Your task to perform on an android device: What is the news today? Image 0: 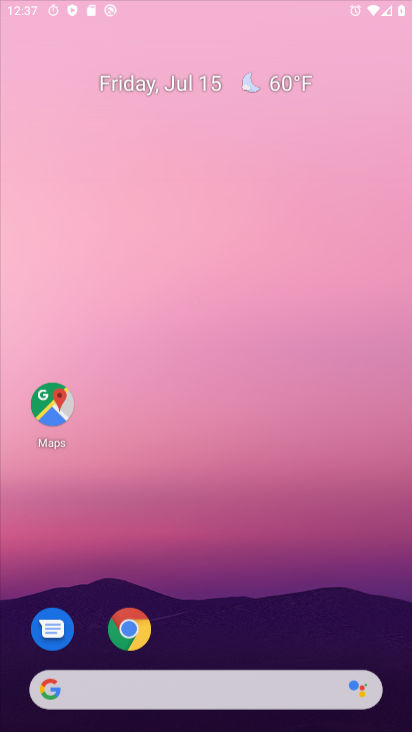
Step 0: click (49, 416)
Your task to perform on an android device: What is the news today? Image 1: 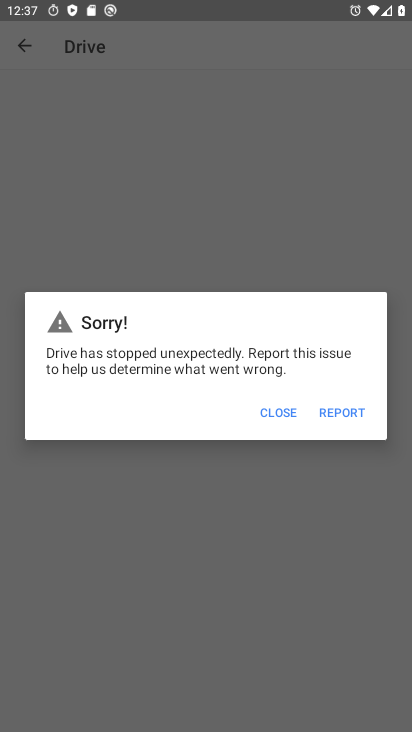
Step 1: click (281, 409)
Your task to perform on an android device: What is the news today? Image 2: 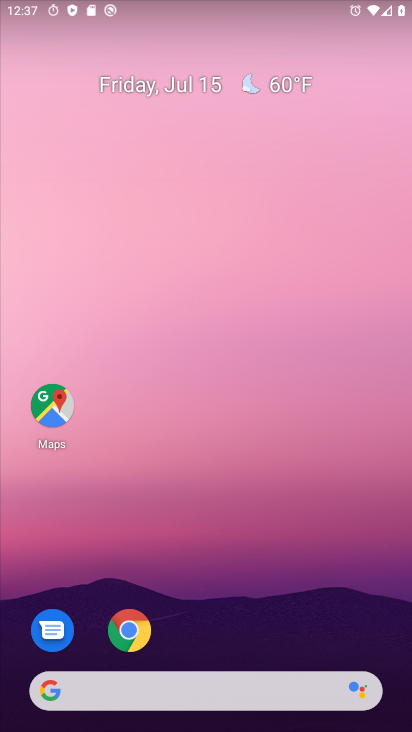
Step 2: drag from (190, 559) to (219, 246)
Your task to perform on an android device: What is the news today? Image 3: 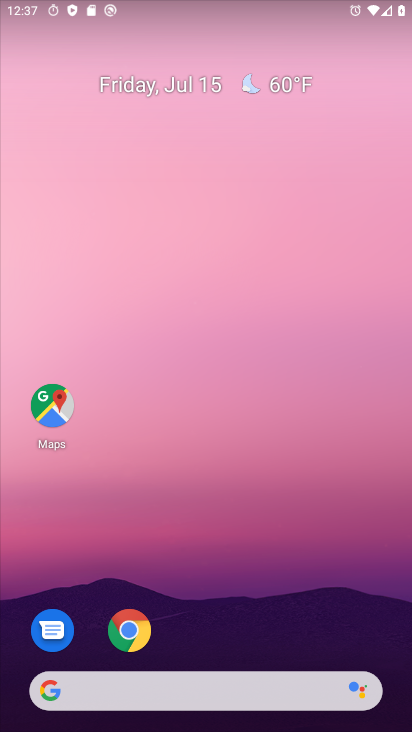
Step 3: drag from (206, 582) to (196, 158)
Your task to perform on an android device: What is the news today? Image 4: 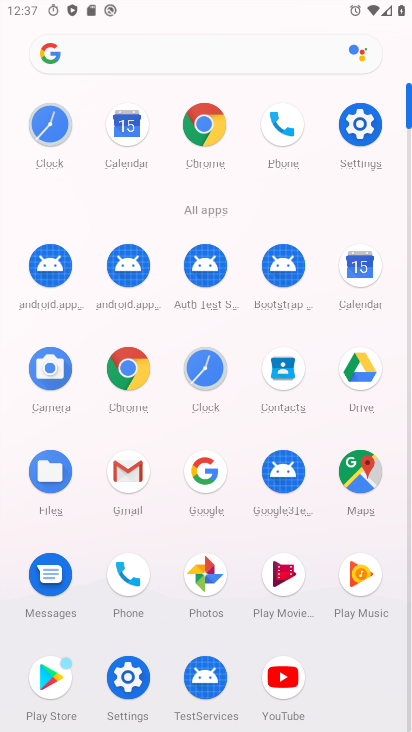
Step 4: click (205, 499)
Your task to perform on an android device: What is the news today? Image 5: 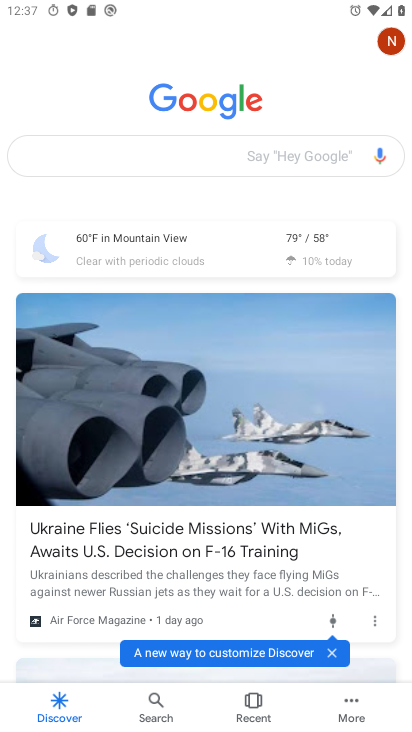
Step 5: click (212, 163)
Your task to perform on an android device: What is the news today? Image 6: 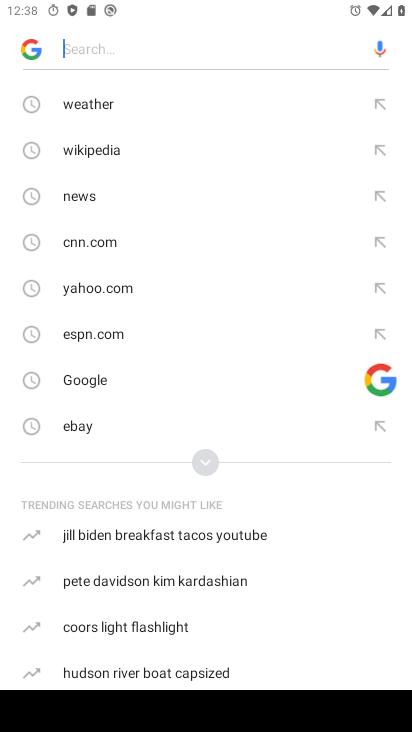
Step 6: type "news today"
Your task to perform on an android device: What is the news today? Image 7: 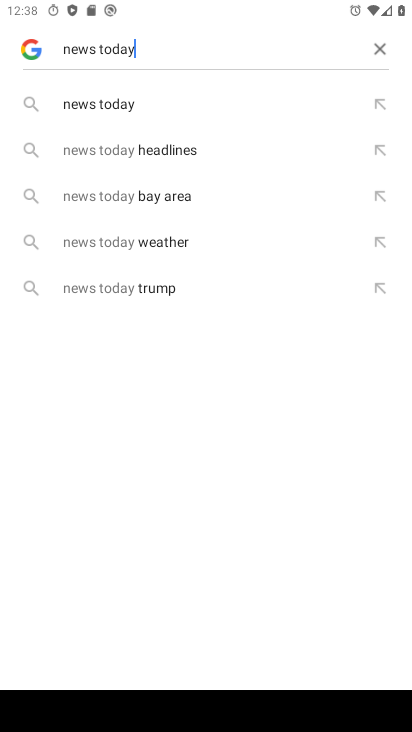
Step 7: click (104, 106)
Your task to perform on an android device: What is the news today? Image 8: 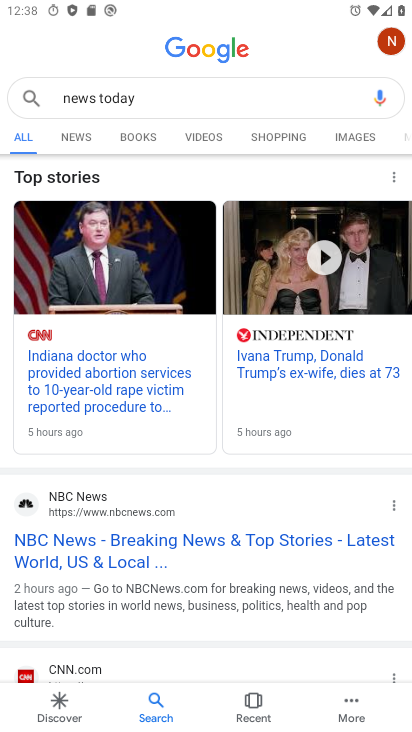
Step 8: task complete